Your task to perform on an android device: refresh tabs in the chrome app Image 0: 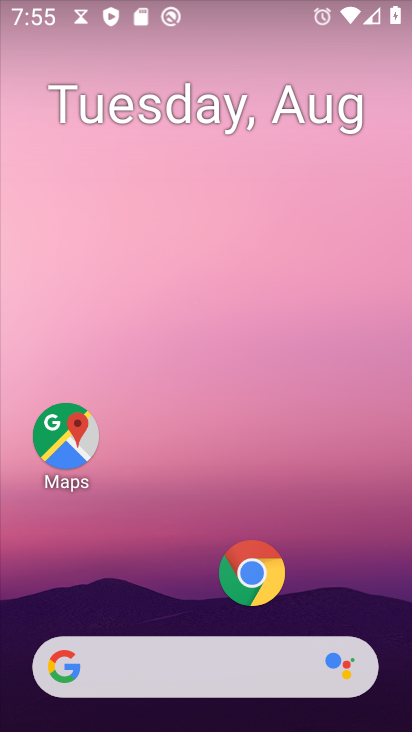
Step 0: press home button
Your task to perform on an android device: refresh tabs in the chrome app Image 1: 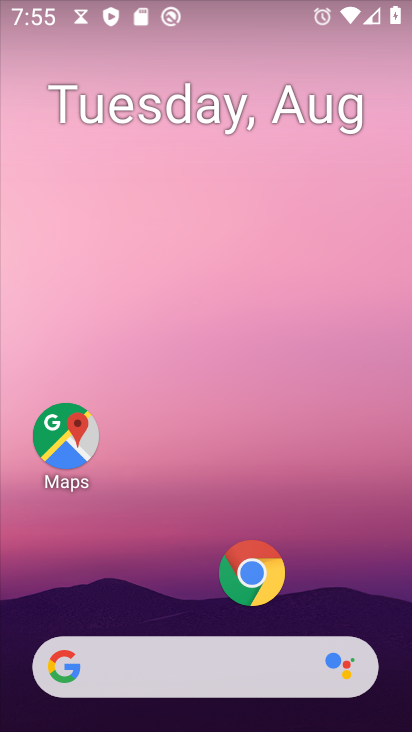
Step 1: drag from (194, 605) to (199, 16)
Your task to perform on an android device: refresh tabs in the chrome app Image 2: 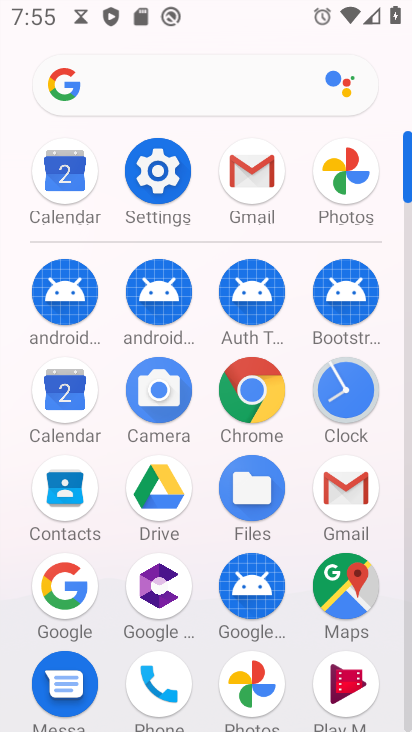
Step 2: click (244, 382)
Your task to perform on an android device: refresh tabs in the chrome app Image 3: 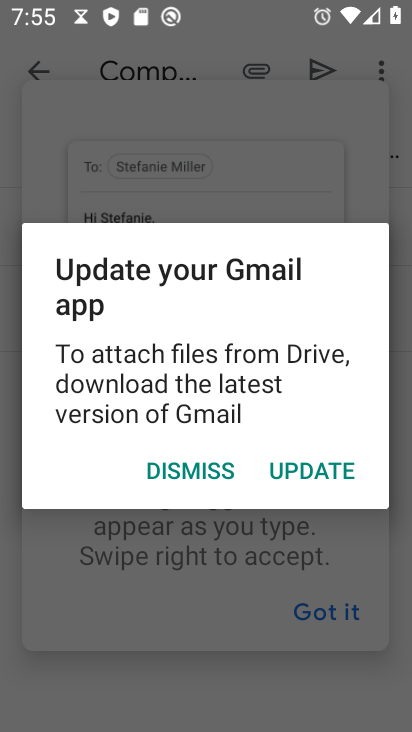
Step 3: press home button
Your task to perform on an android device: refresh tabs in the chrome app Image 4: 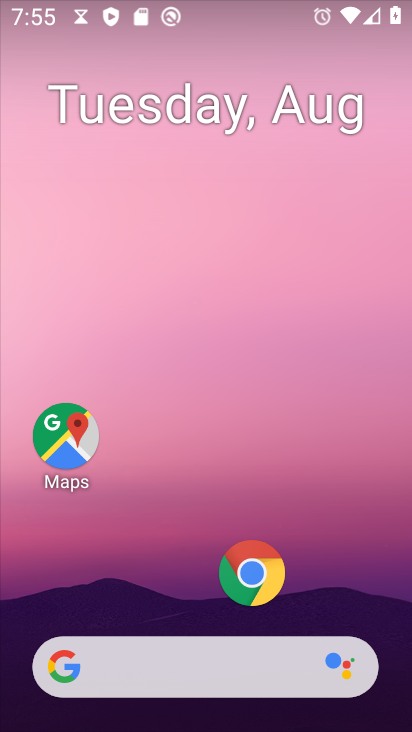
Step 4: click (250, 578)
Your task to perform on an android device: refresh tabs in the chrome app Image 5: 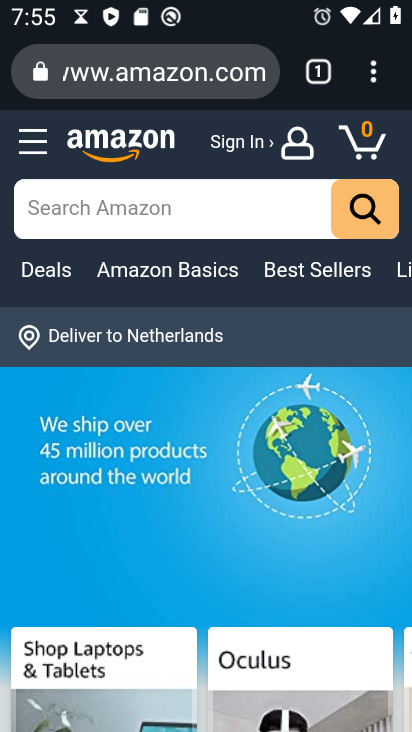
Step 5: click (373, 58)
Your task to perform on an android device: refresh tabs in the chrome app Image 6: 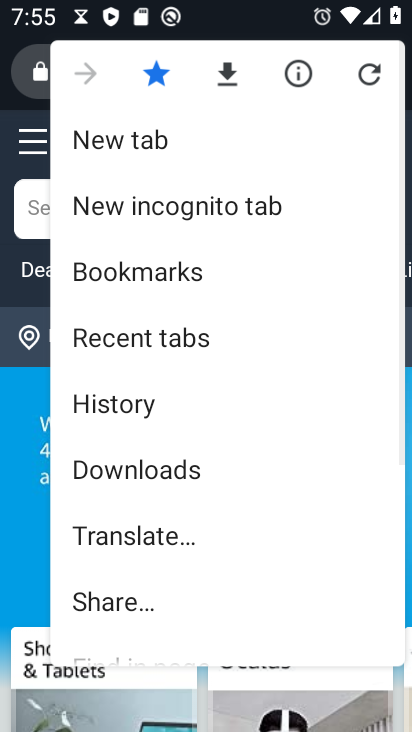
Step 6: click (361, 63)
Your task to perform on an android device: refresh tabs in the chrome app Image 7: 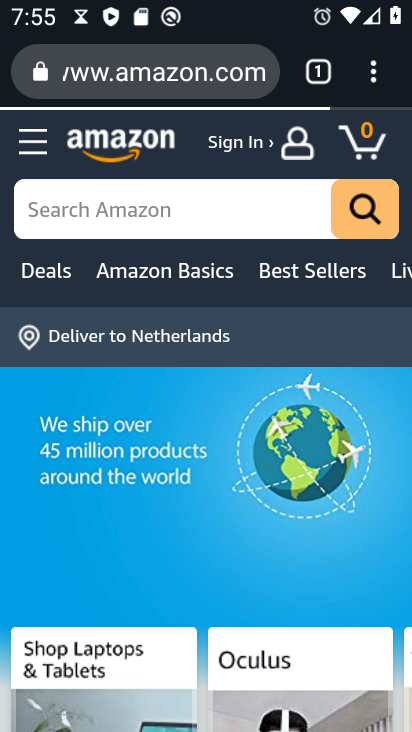
Step 7: task complete